Your task to perform on an android device: Go to Google Image 0: 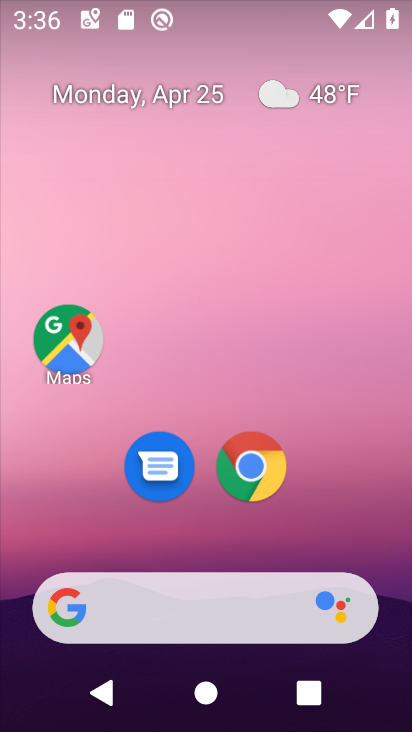
Step 0: drag from (231, 550) to (244, 291)
Your task to perform on an android device: Go to Google Image 1: 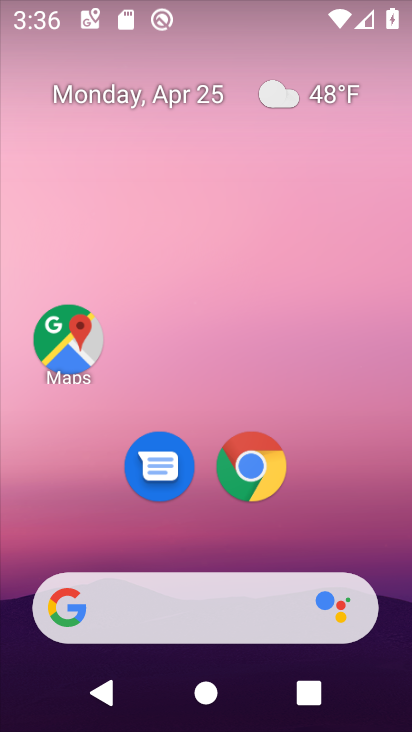
Step 1: click (245, 479)
Your task to perform on an android device: Go to Google Image 2: 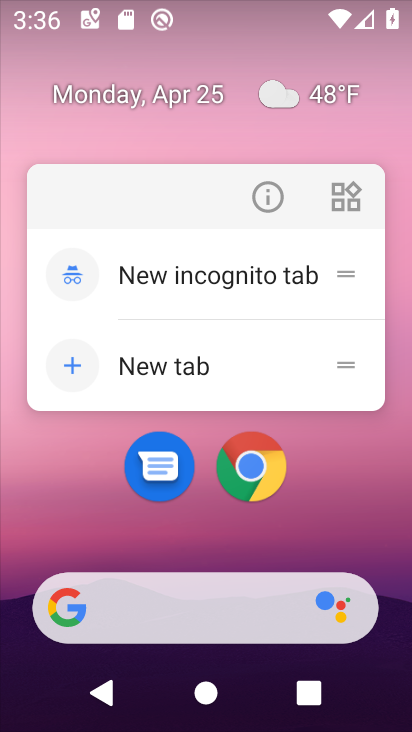
Step 2: click (239, 562)
Your task to perform on an android device: Go to Google Image 3: 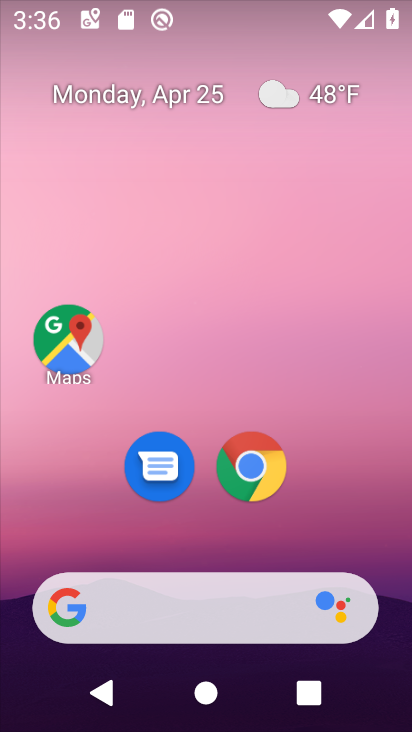
Step 3: drag from (219, 448) to (195, 187)
Your task to perform on an android device: Go to Google Image 4: 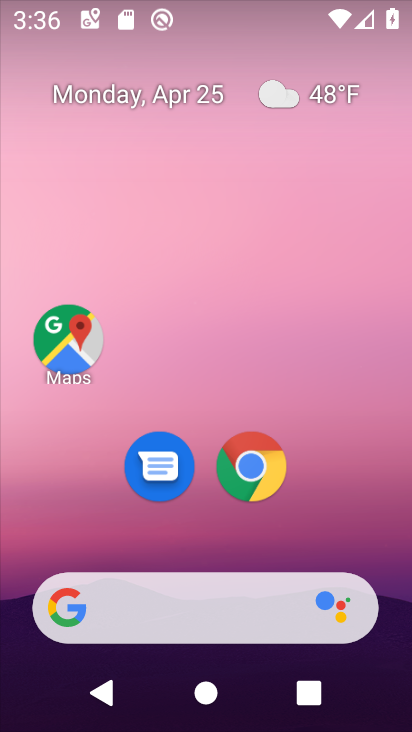
Step 4: drag from (222, 542) to (210, 176)
Your task to perform on an android device: Go to Google Image 5: 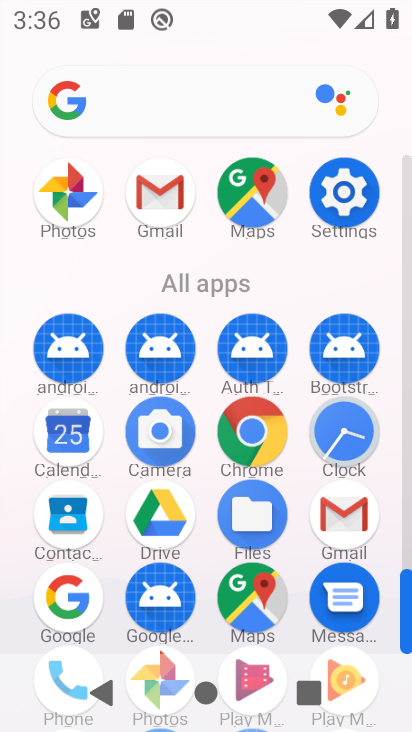
Step 5: click (86, 608)
Your task to perform on an android device: Go to Google Image 6: 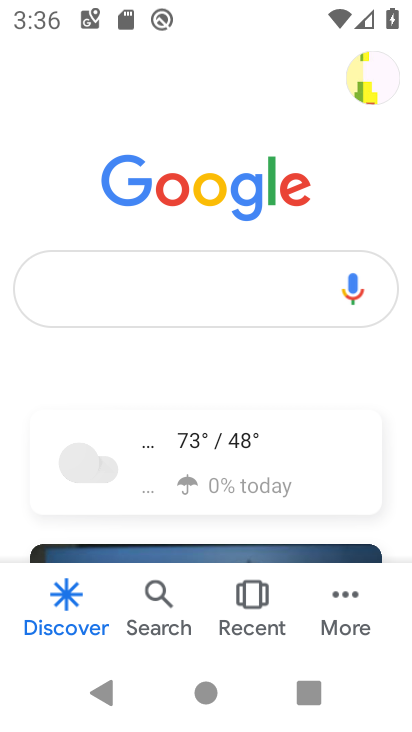
Step 6: task complete